Your task to perform on an android device: Go to notification settings Image 0: 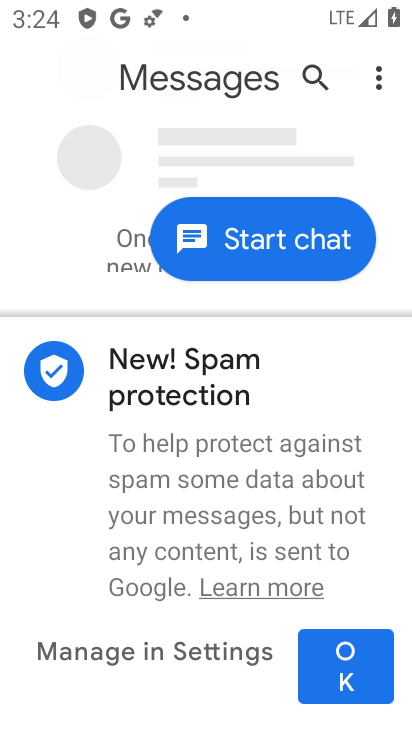
Step 0: press home button
Your task to perform on an android device: Go to notification settings Image 1: 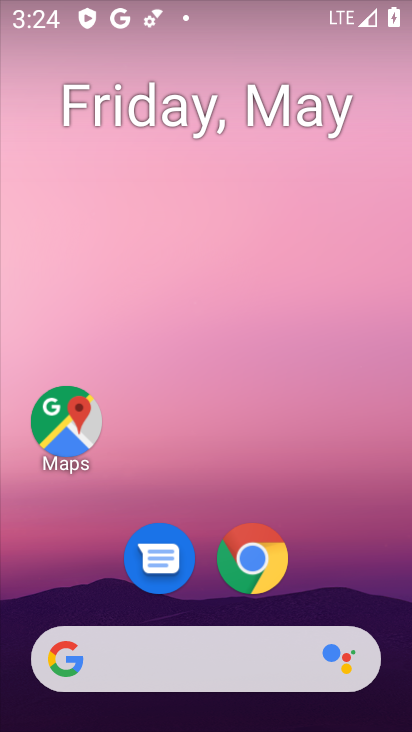
Step 1: drag from (225, 609) to (298, 143)
Your task to perform on an android device: Go to notification settings Image 2: 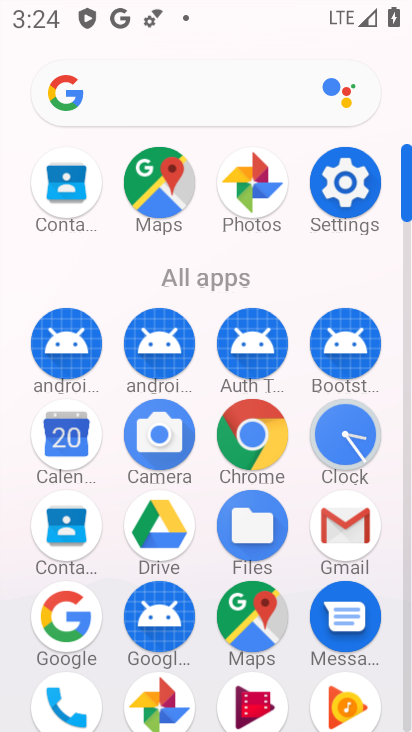
Step 2: click (345, 194)
Your task to perform on an android device: Go to notification settings Image 3: 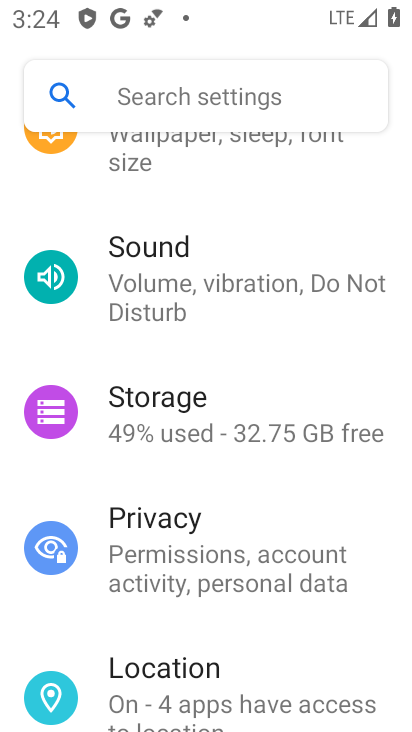
Step 3: drag from (307, 216) to (205, 596)
Your task to perform on an android device: Go to notification settings Image 4: 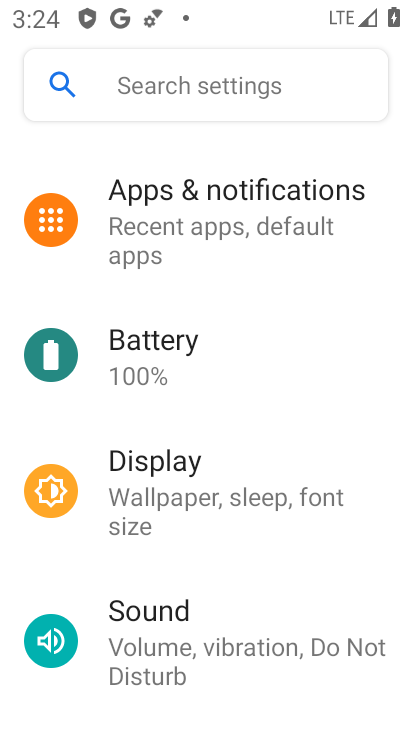
Step 4: click (253, 215)
Your task to perform on an android device: Go to notification settings Image 5: 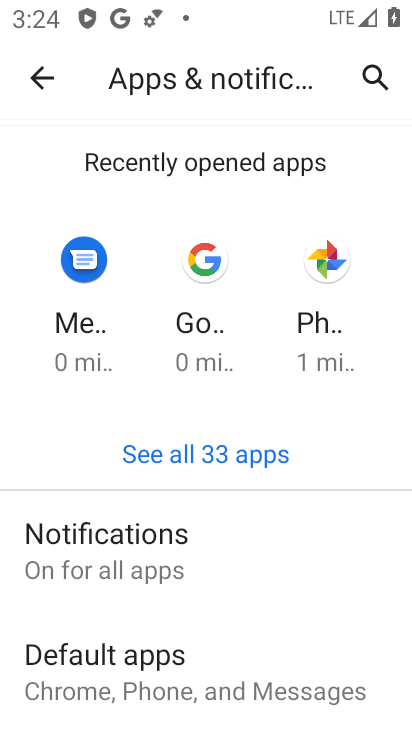
Step 5: click (158, 550)
Your task to perform on an android device: Go to notification settings Image 6: 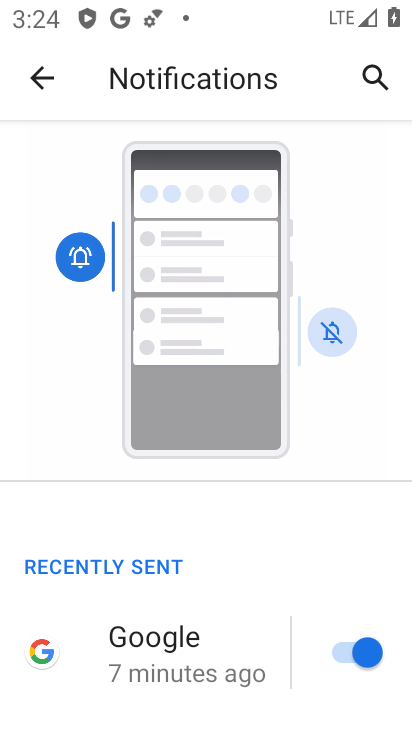
Step 6: task complete